Your task to perform on an android device: Is it going to rain this weekend? Image 0: 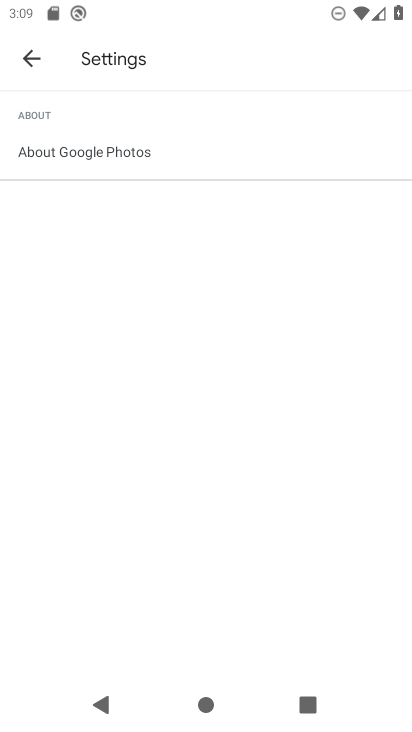
Step 0: press home button
Your task to perform on an android device: Is it going to rain this weekend? Image 1: 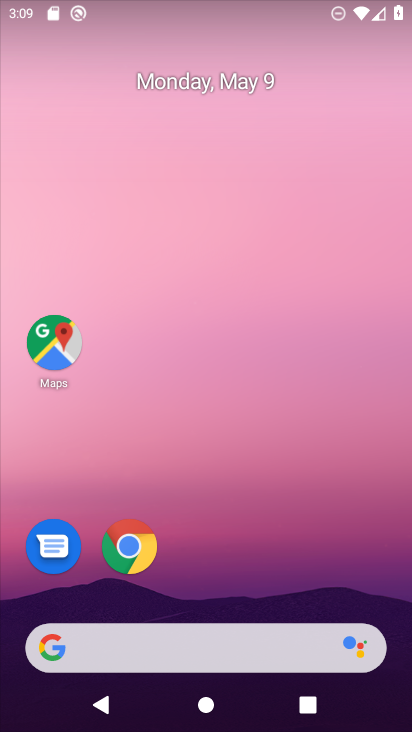
Step 1: click (136, 654)
Your task to perform on an android device: Is it going to rain this weekend? Image 2: 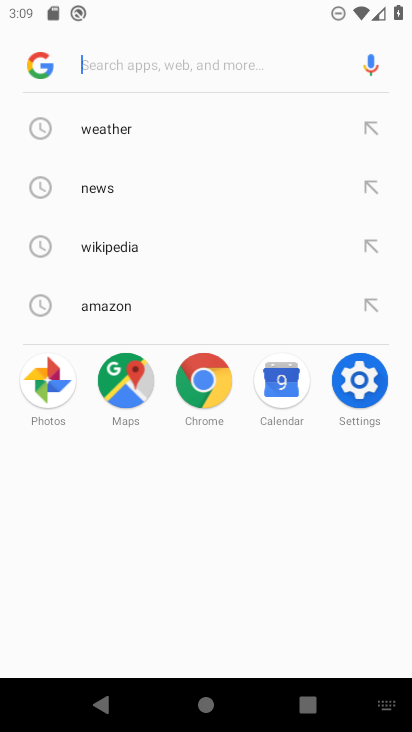
Step 2: type "Is it going to rain this weekend?"
Your task to perform on an android device: Is it going to rain this weekend? Image 3: 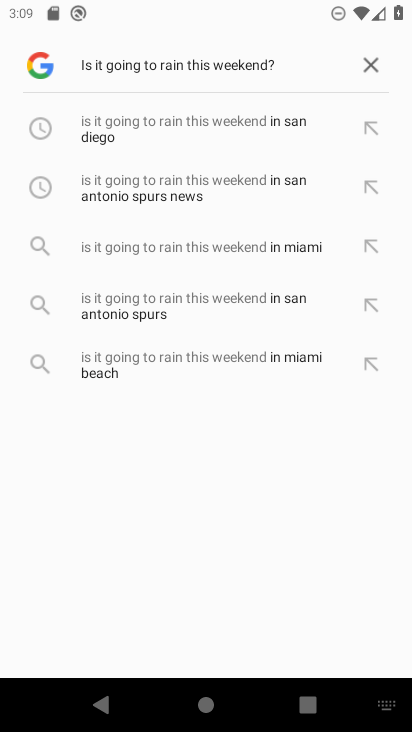
Step 3: click (188, 138)
Your task to perform on an android device: Is it going to rain this weekend? Image 4: 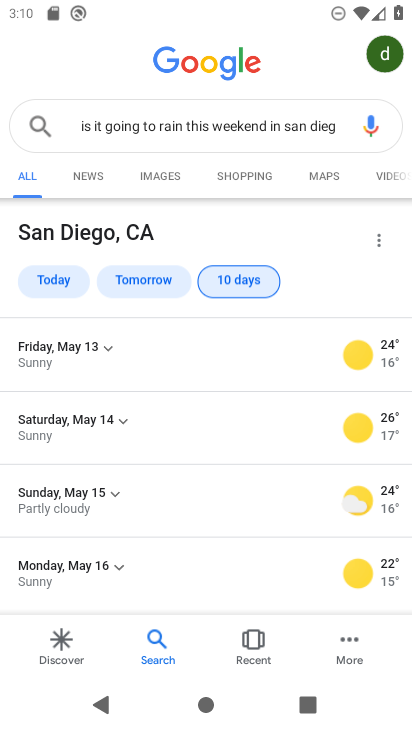
Step 4: task complete